Your task to perform on an android device: Show me productivity apps on the Play Store Image 0: 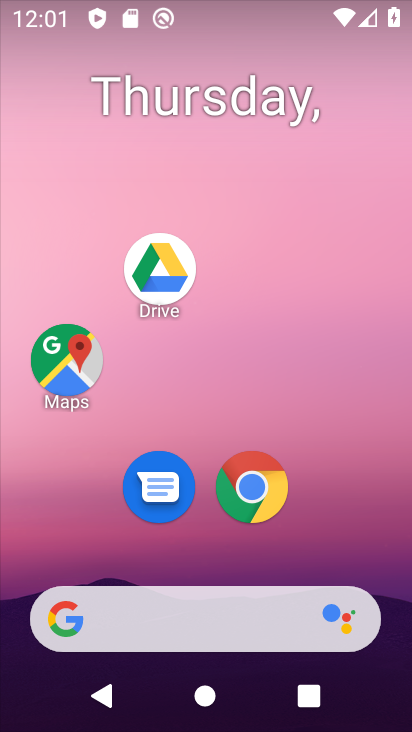
Step 0: drag from (206, 405) to (227, 79)
Your task to perform on an android device: Show me productivity apps on the Play Store Image 1: 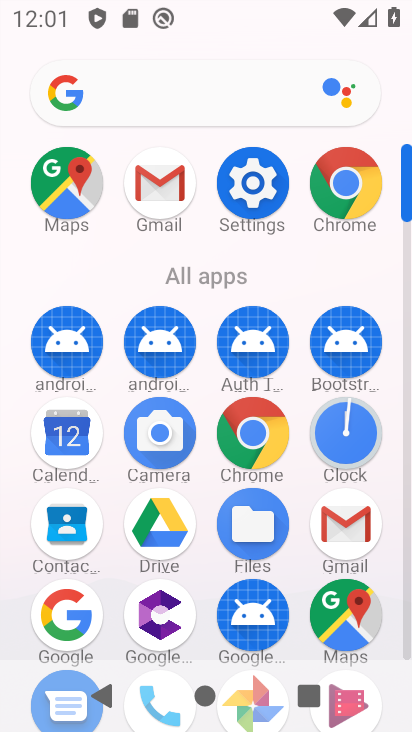
Step 1: drag from (204, 581) to (224, 117)
Your task to perform on an android device: Show me productivity apps on the Play Store Image 2: 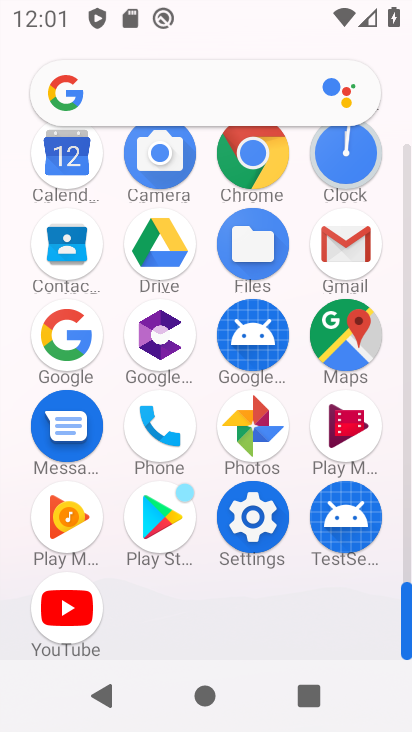
Step 2: click (147, 519)
Your task to perform on an android device: Show me productivity apps on the Play Store Image 3: 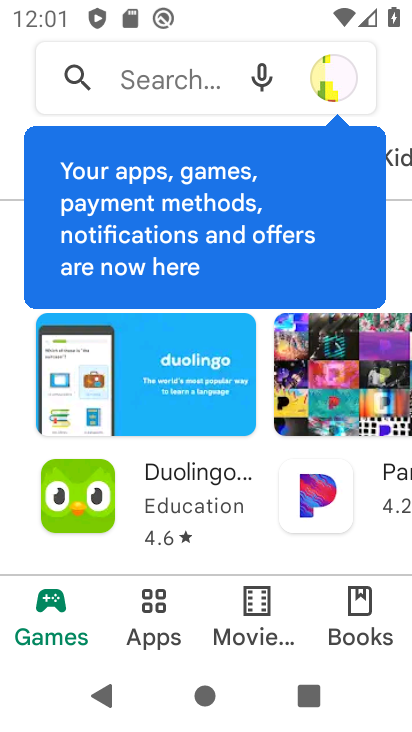
Step 3: click (146, 631)
Your task to perform on an android device: Show me productivity apps on the Play Store Image 4: 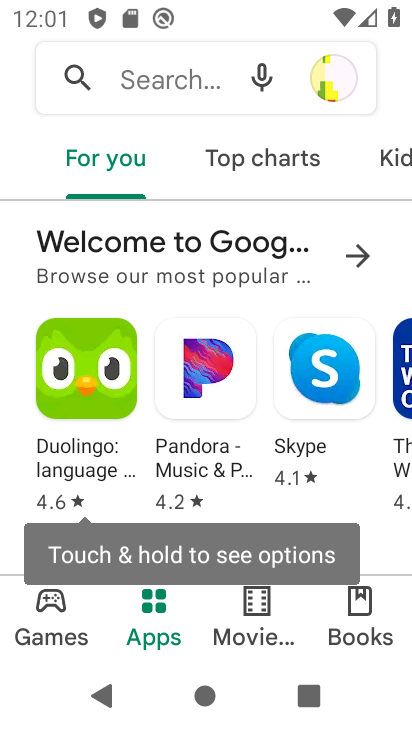
Step 4: drag from (358, 159) to (26, 169)
Your task to perform on an android device: Show me productivity apps on the Play Store Image 5: 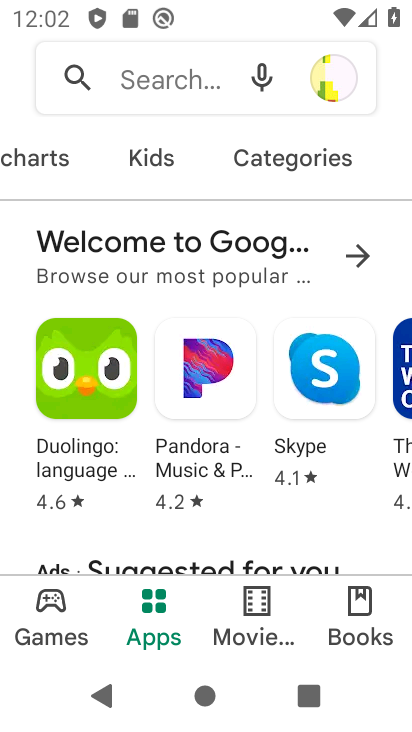
Step 5: click (310, 162)
Your task to perform on an android device: Show me productivity apps on the Play Store Image 6: 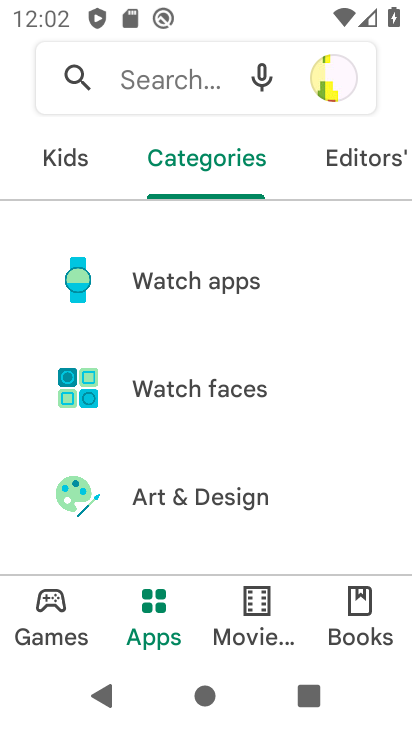
Step 6: drag from (212, 492) to (213, 39)
Your task to perform on an android device: Show me productivity apps on the Play Store Image 7: 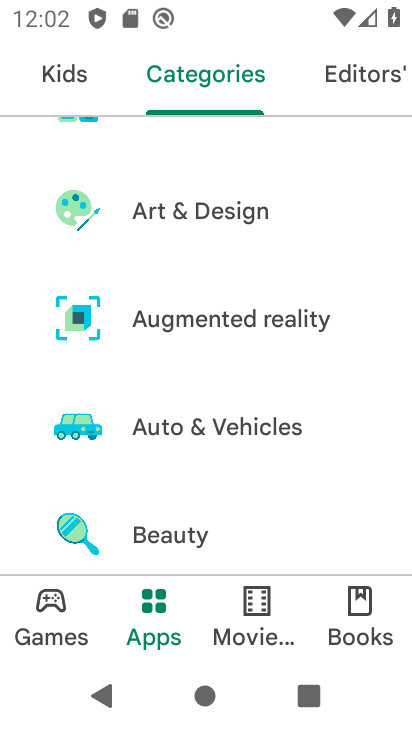
Step 7: drag from (192, 428) to (199, 40)
Your task to perform on an android device: Show me productivity apps on the Play Store Image 8: 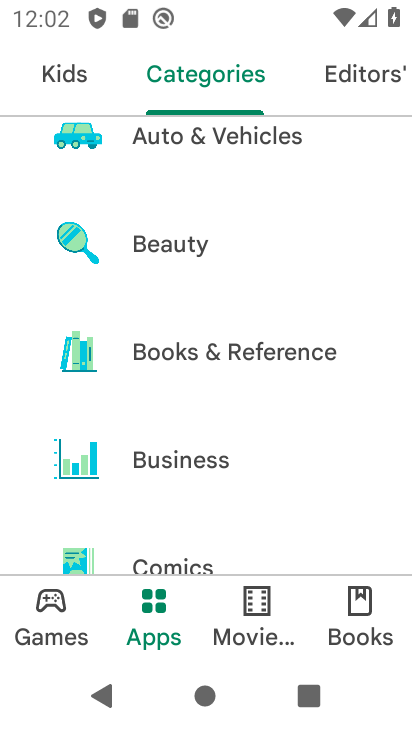
Step 8: drag from (206, 529) to (232, 49)
Your task to perform on an android device: Show me productivity apps on the Play Store Image 9: 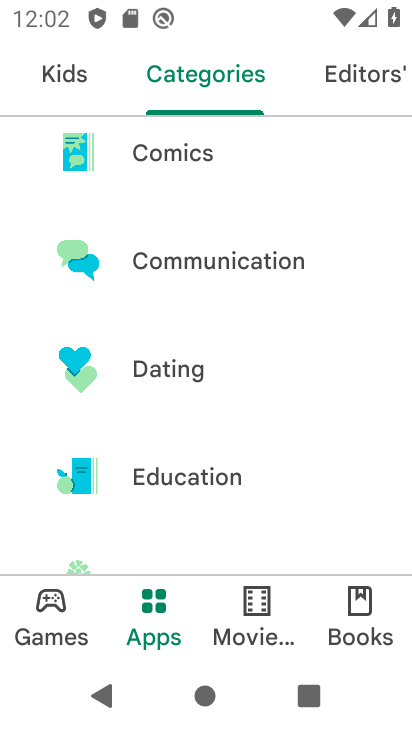
Step 9: drag from (198, 497) to (217, 89)
Your task to perform on an android device: Show me productivity apps on the Play Store Image 10: 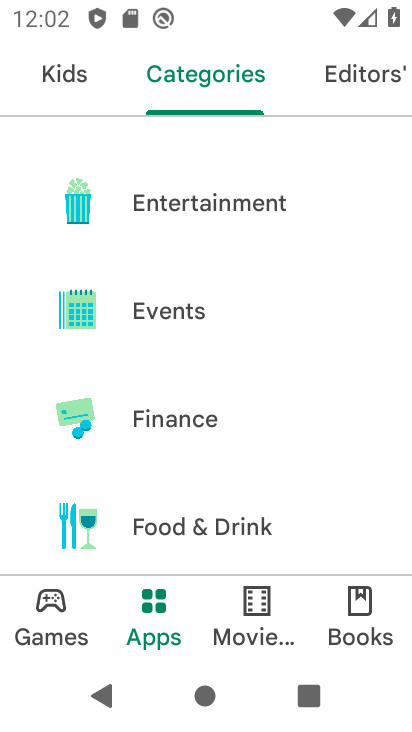
Step 10: drag from (174, 539) to (187, 27)
Your task to perform on an android device: Show me productivity apps on the Play Store Image 11: 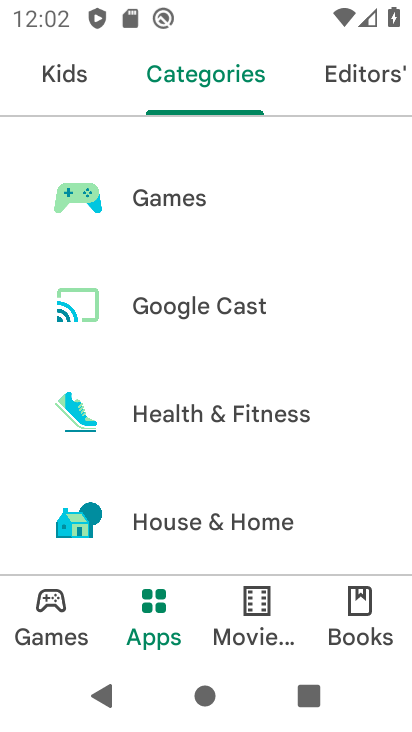
Step 11: drag from (184, 546) to (216, 51)
Your task to perform on an android device: Show me productivity apps on the Play Store Image 12: 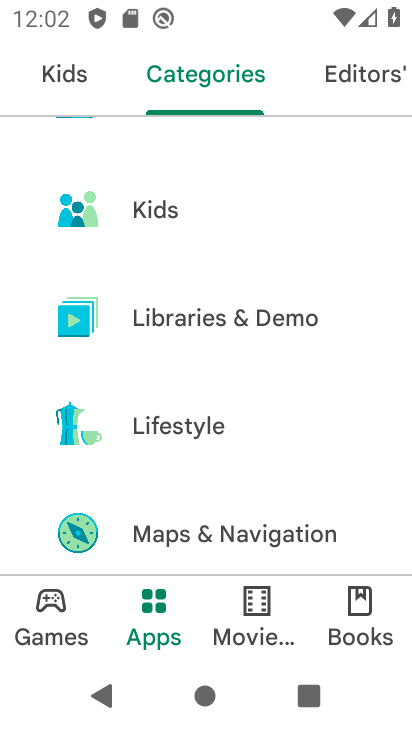
Step 12: drag from (185, 433) to (202, 46)
Your task to perform on an android device: Show me productivity apps on the Play Store Image 13: 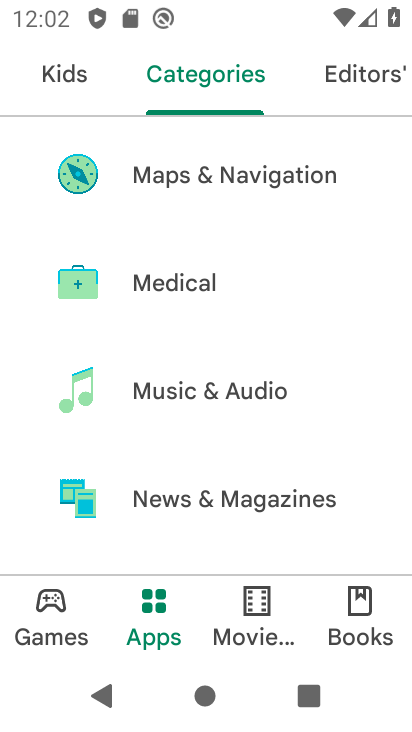
Step 13: drag from (168, 519) to (199, 8)
Your task to perform on an android device: Show me productivity apps on the Play Store Image 14: 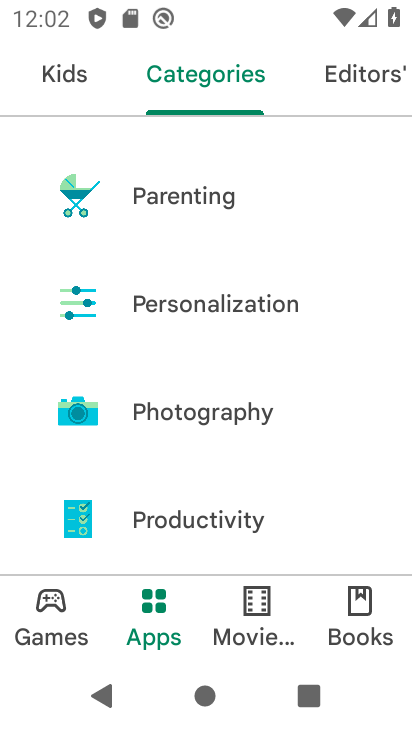
Step 14: click (161, 523)
Your task to perform on an android device: Show me productivity apps on the Play Store Image 15: 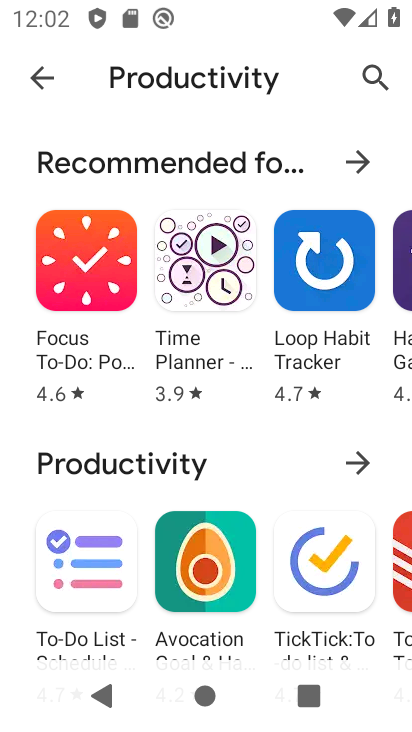
Step 15: task complete